Your task to perform on an android device: Open accessibility settings Image 0: 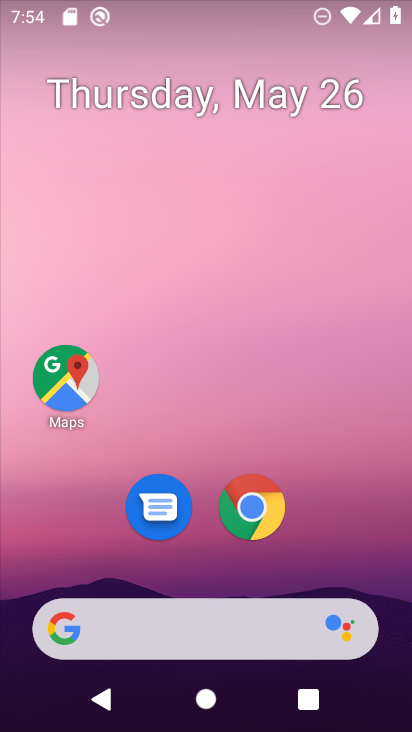
Step 0: drag from (192, 585) to (406, 19)
Your task to perform on an android device: Open accessibility settings Image 1: 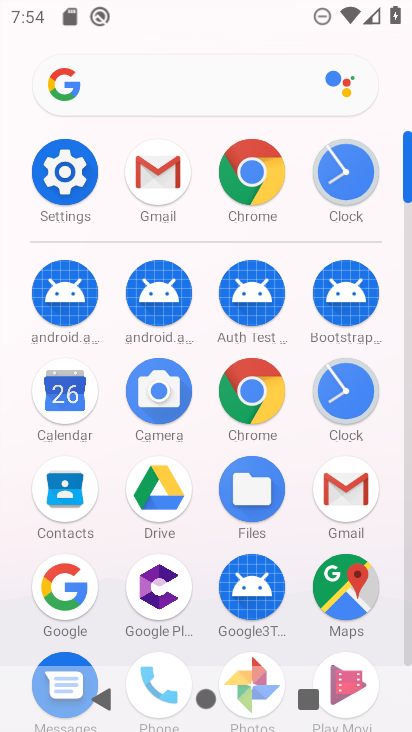
Step 1: click (62, 184)
Your task to perform on an android device: Open accessibility settings Image 2: 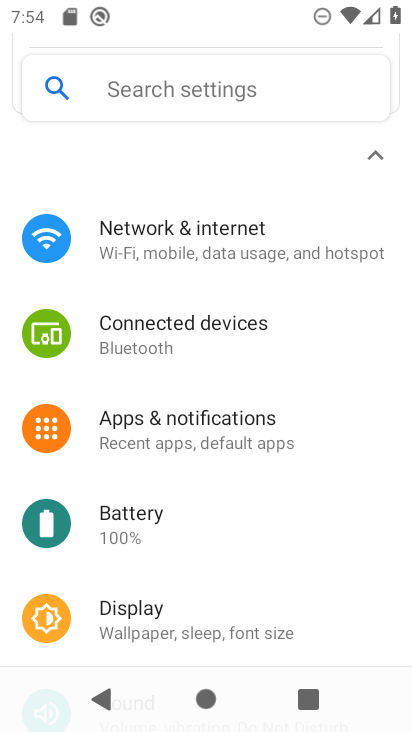
Step 2: drag from (171, 590) to (224, 130)
Your task to perform on an android device: Open accessibility settings Image 3: 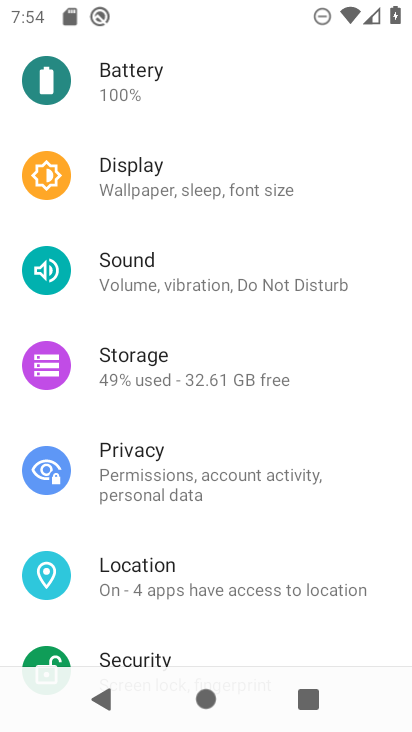
Step 3: drag from (176, 615) to (252, 236)
Your task to perform on an android device: Open accessibility settings Image 4: 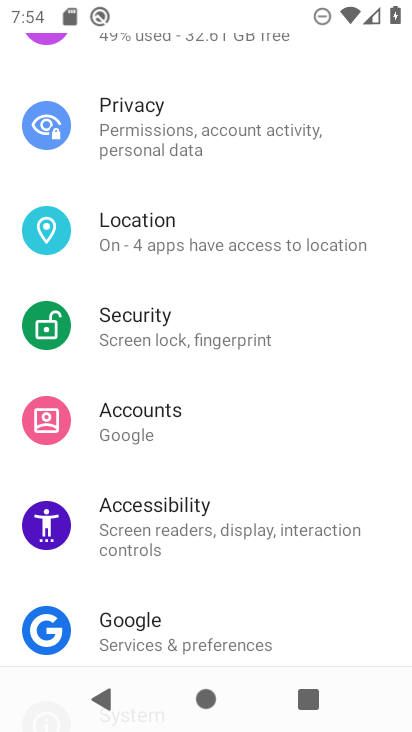
Step 4: click (170, 521)
Your task to perform on an android device: Open accessibility settings Image 5: 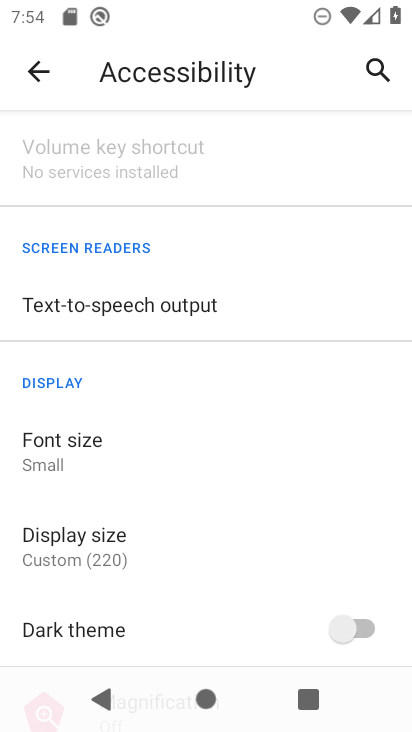
Step 5: task complete